Your task to perform on an android device: Open Wikipedia Image 0: 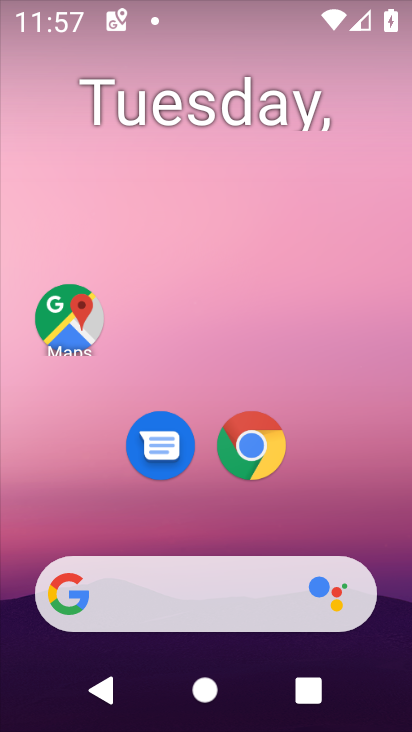
Step 0: click (244, 454)
Your task to perform on an android device: Open Wikipedia Image 1: 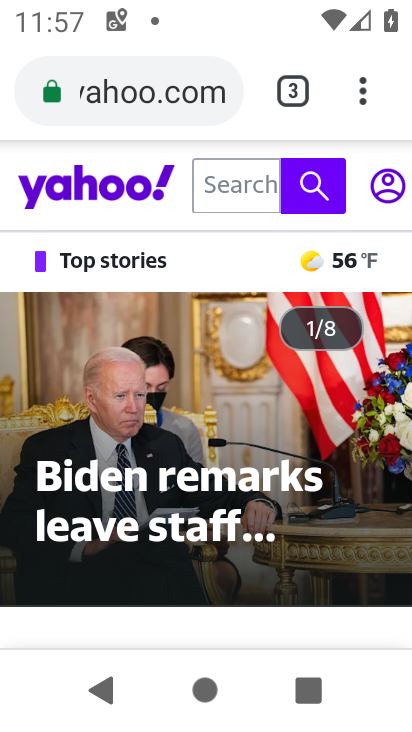
Step 1: click (364, 99)
Your task to perform on an android device: Open Wikipedia Image 2: 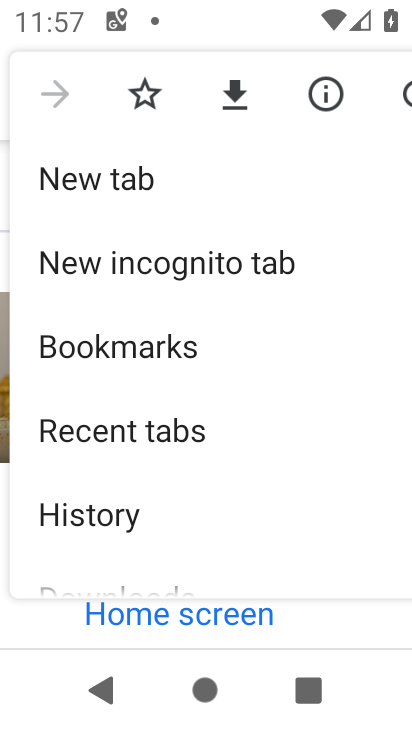
Step 2: click (124, 168)
Your task to perform on an android device: Open Wikipedia Image 3: 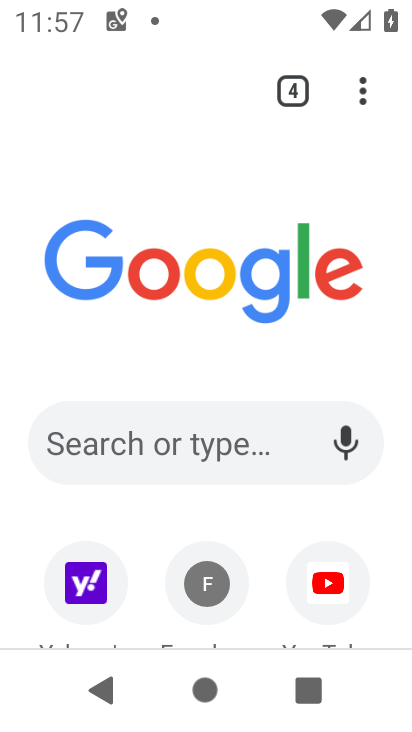
Step 3: drag from (144, 611) to (152, 304)
Your task to perform on an android device: Open Wikipedia Image 4: 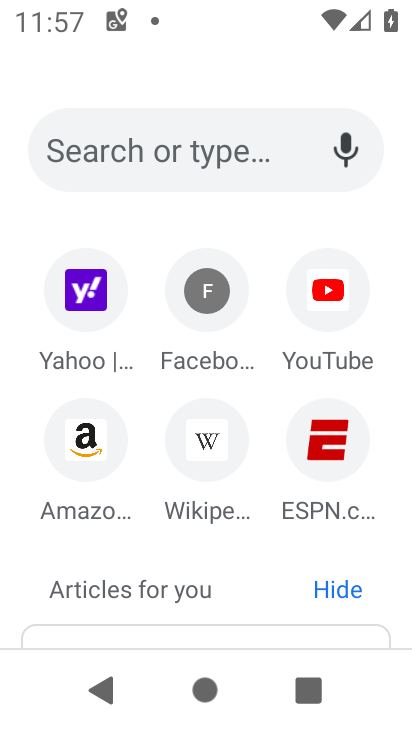
Step 4: click (190, 446)
Your task to perform on an android device: Open Wikipedia Image 5: 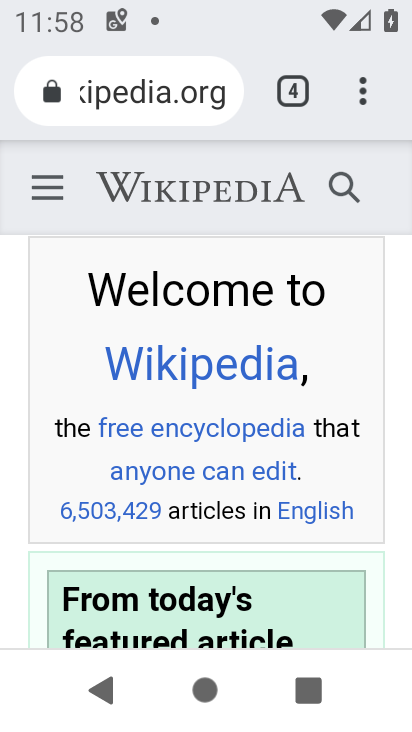
Step 5: task complete